Your task to perform on an android device: Empty the shopping cart on ebay. Search for dell xps on ebay, select the first entry, add it to the cart, then select checkout. Image 0: 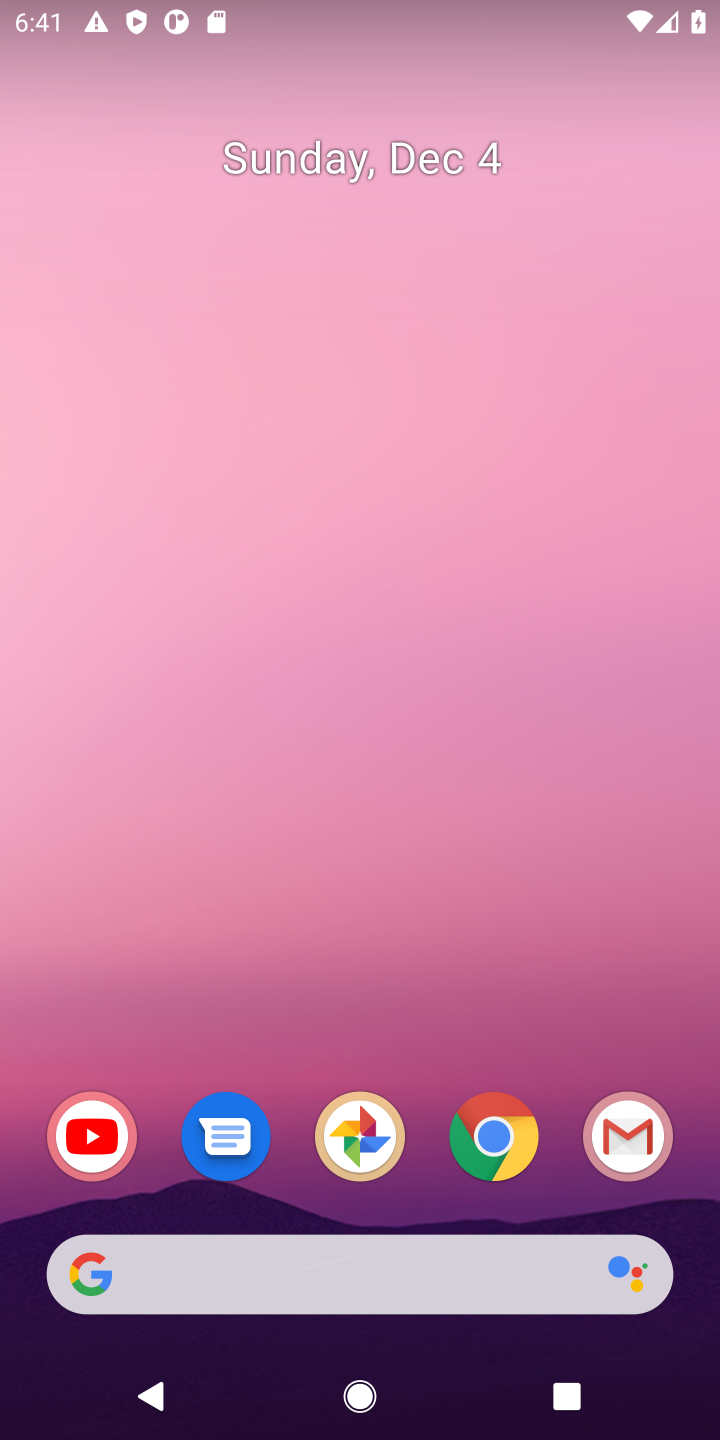
Step 0: click (500, 1124)
Your task to perform on an android device: Empty the shopping cart on ebay. Search for dell xps on ebay, select the first entry, add it to the cart, then select checkout. Image 1: 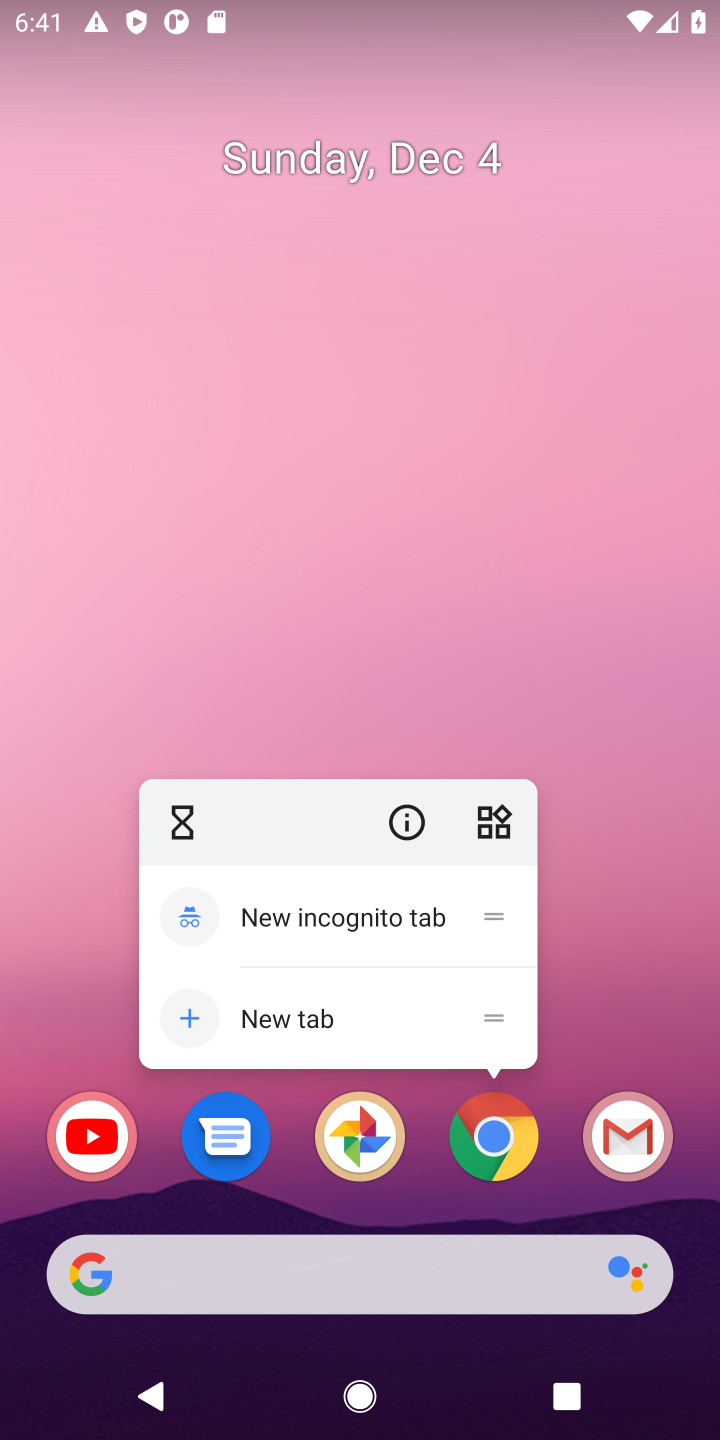
Step 1: click (500, 1124)
Your task to perform on an android device: Empty the shopping cart on ebay. Search for dell xps on ebay, select the first entry, add it to the cart, then select checkout. Image 2: 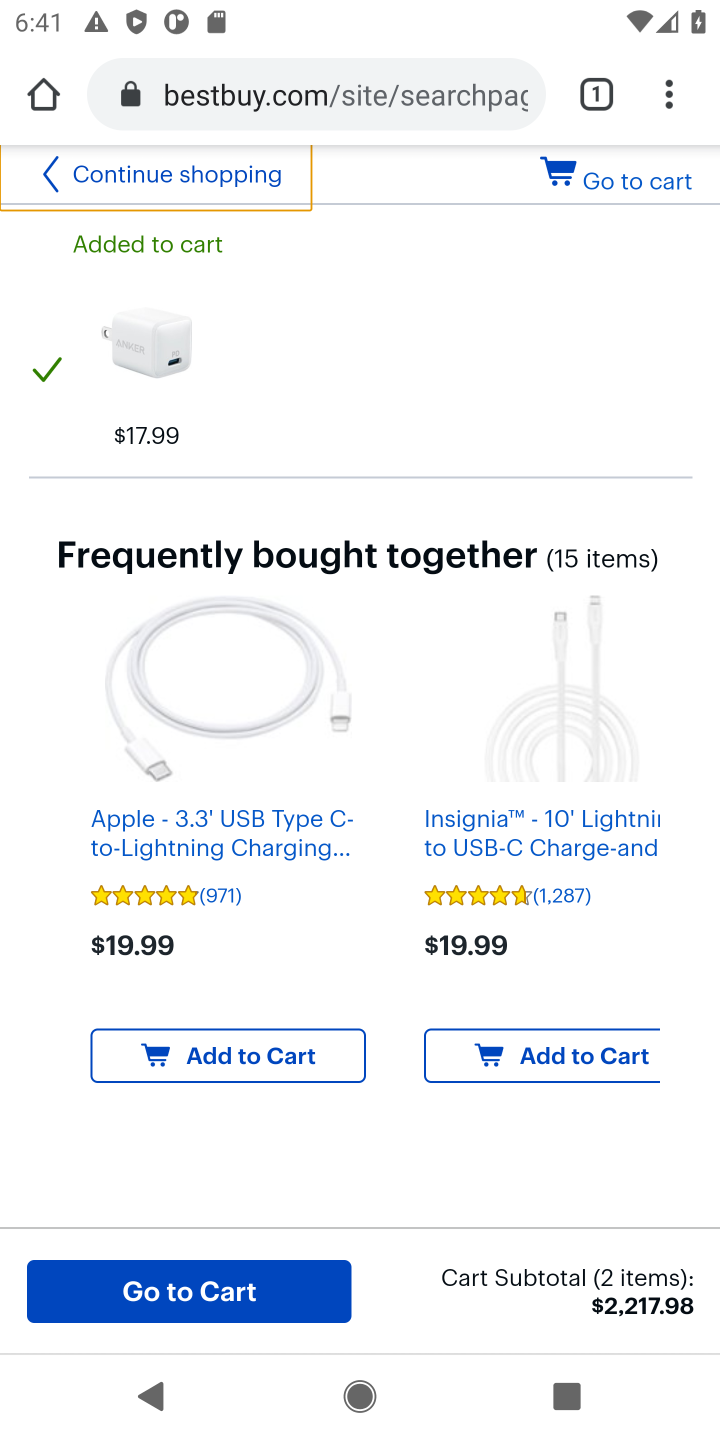
Step 2: click (250, 90)
Your task to perform on an android device: Empty the shopping cart on ebay. Search for dell xps on ebay, select the first entry, add it to the cart, then select checkout. Image 3: 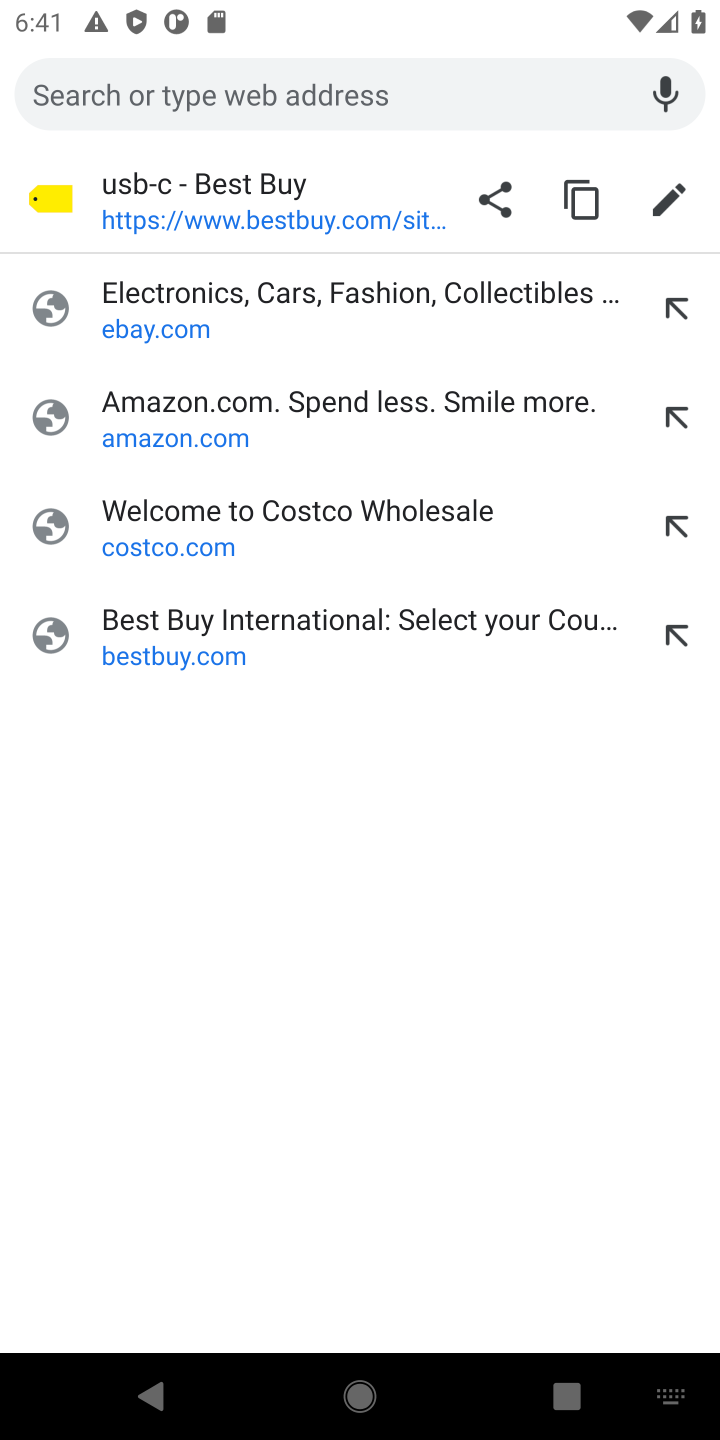
Step 3: click (170, 315)
Your task to perform on an android device: Empty the shopping cart on ebay. Search for dell xps on ebay, select the first entry, add it to the cart, then select checkout. Image 4: 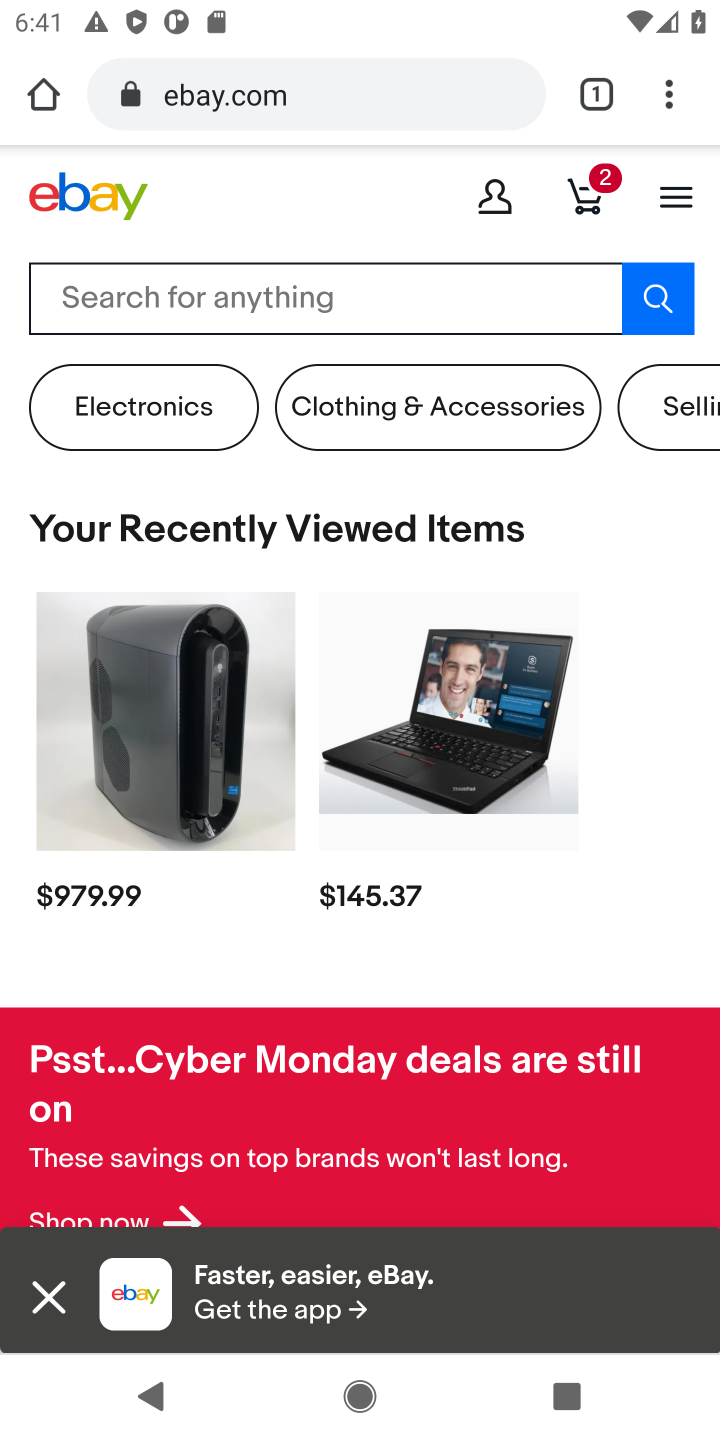
Step 4: click (592, 201)
Your task to perform on an android device: Empty the shopping cart on ebay. Search for dell xps on ebay, select the first entry, add it to the cart, then select checkout. Image 5: 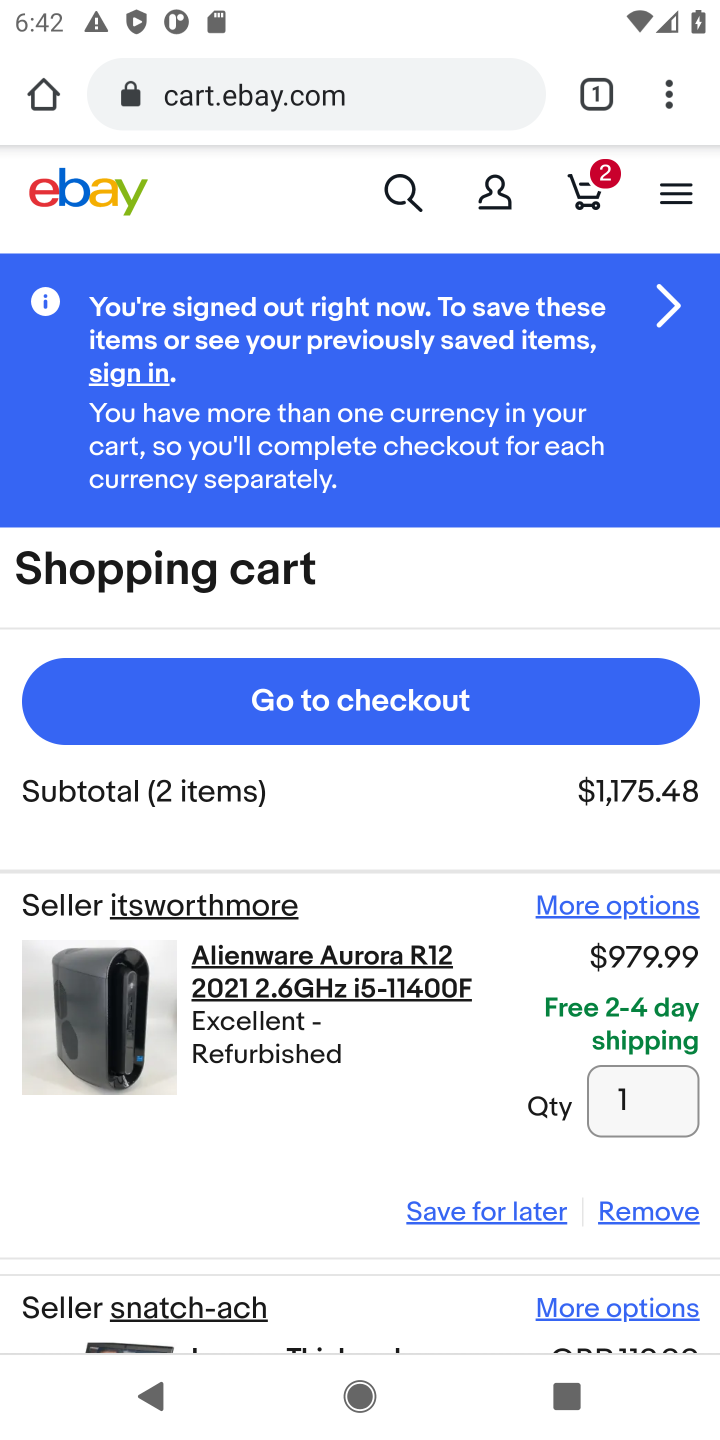
Step 5: click (628, 1223)
Your task to perform on an android device: Empty the shopping cart on ebay. Search for dell xps on ebay, select the first entry, add it to the cart, then select checkout. Image 6: 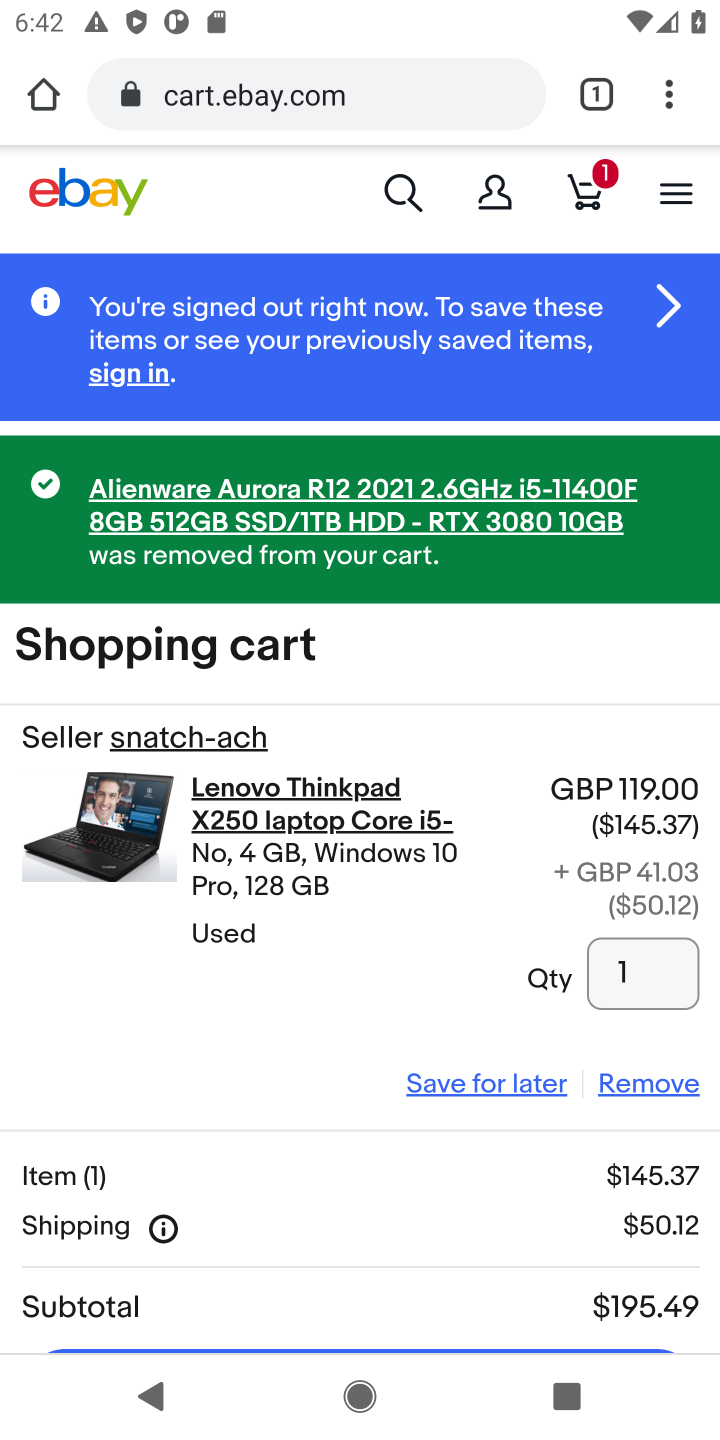
Step 6: click (670, 1075)
Your task to perform on an android device: Empty the shopping cart on ebay. Search for dell xps on ebay, select the first entry, add it to the cart, then select checkout. Image 7: 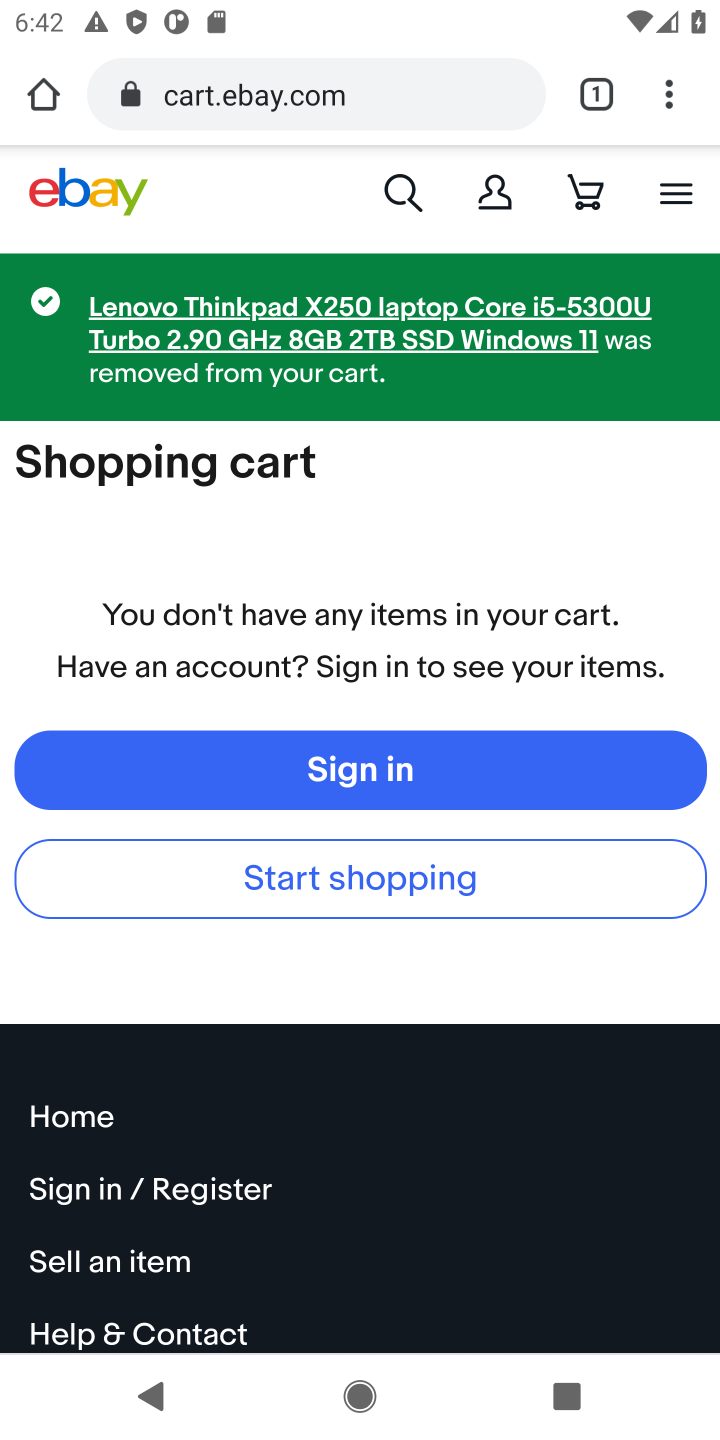
Step 7: click (387, 191)
Your task to perform on an android device: Empty the shopping cart on ebay. Search for dell xps on ebay, select the first entry, add it to the cart, then select checkout. Image 8: 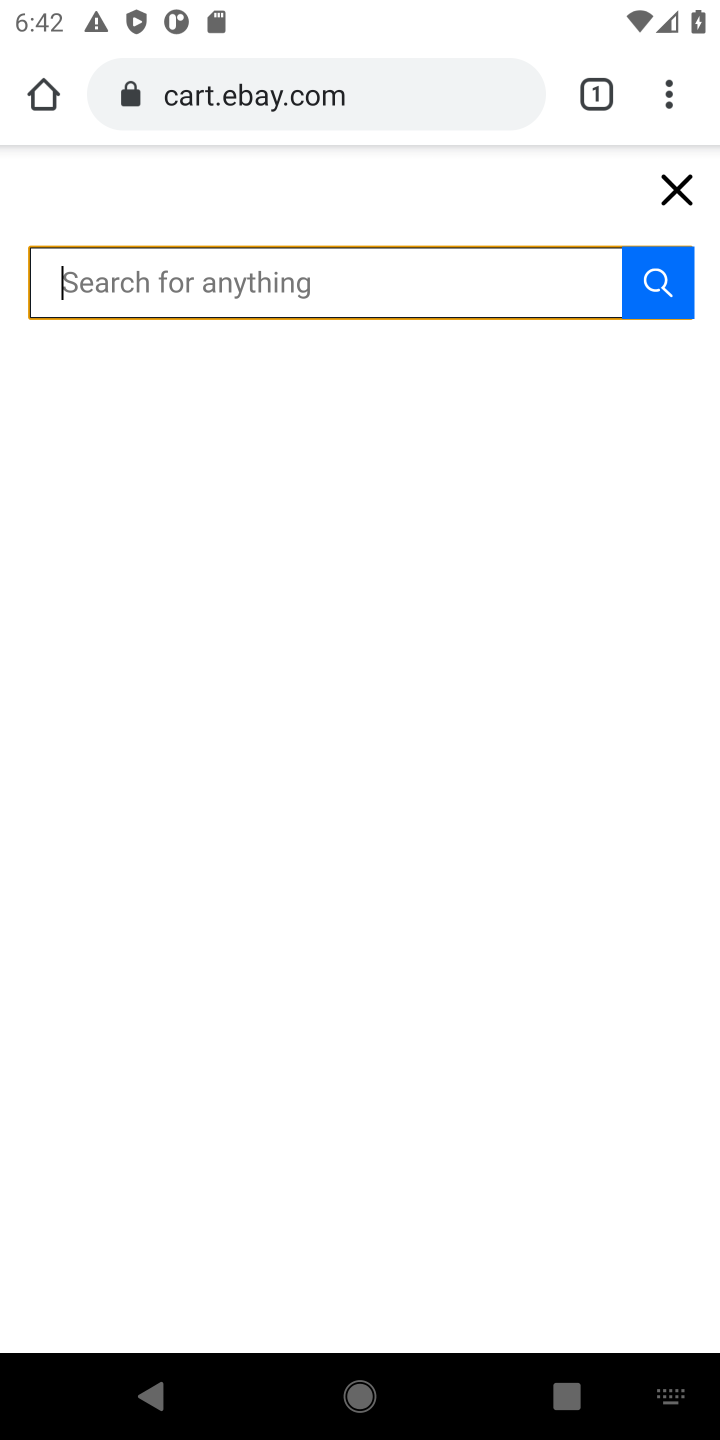
Step 8: type "dell xps"
Your task to perform on an android device: Empty the shopping cart on ebay. Search for dell xps on ebay, select the first entry, add it to the cart, then select checkout. Image 9: 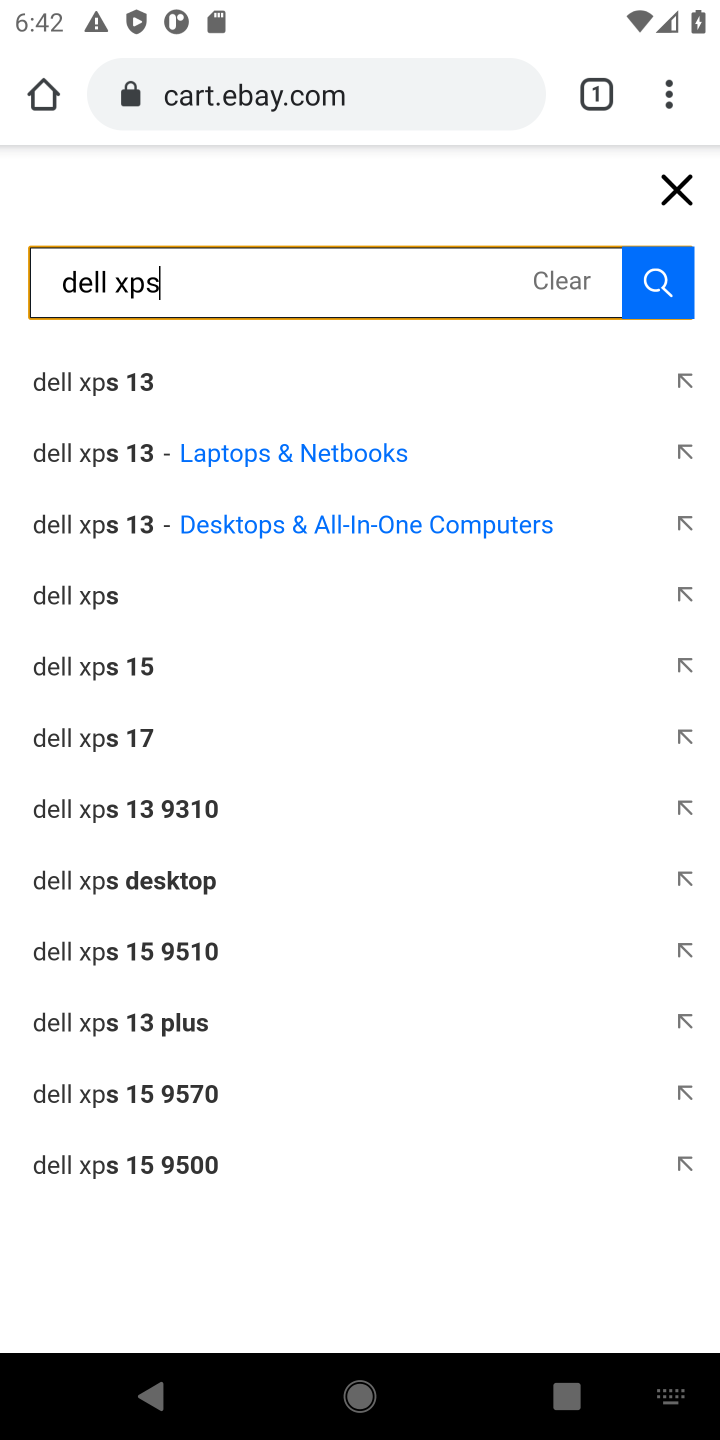
Step 9: click (106, 606)
Your task to perform on an android device: Empty the shopping cart on ebay. Search for dell xps on ebay, select the first entry, add it to the cart, then select checkout. Image 10: 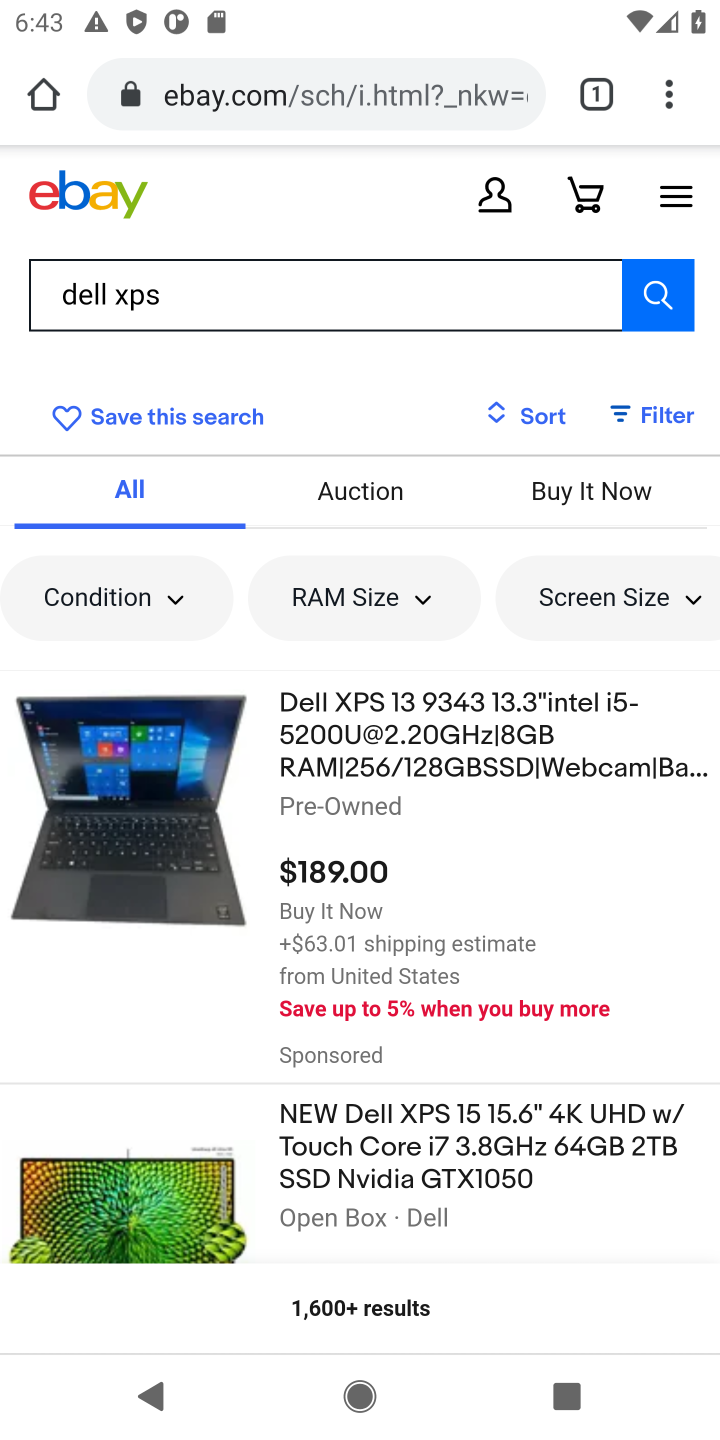
Step 10: click (374, 764)
Your task to perform on an android device: Empty the shopping cart on ebay. Search for dell xps on ebay, select the first entry, add it to the cart, then select checkout. Image 11: 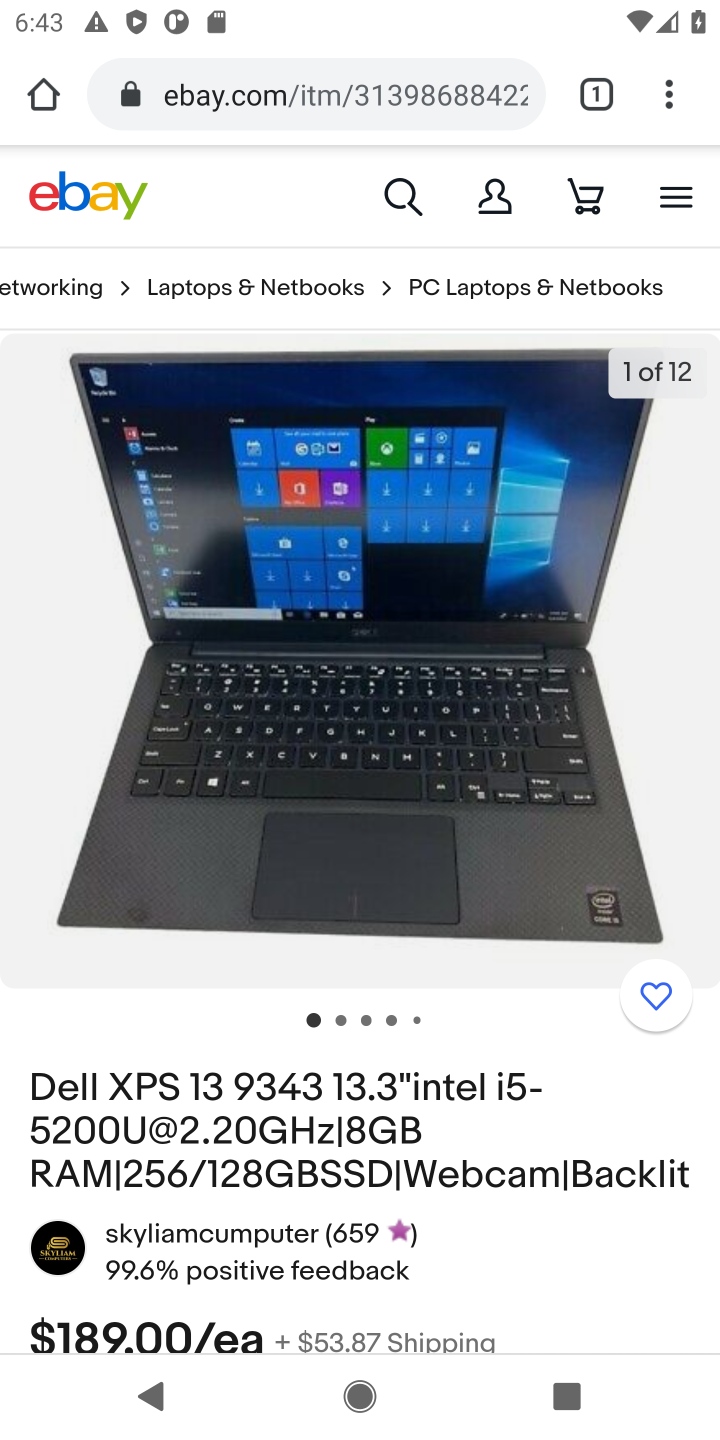
Step 11: drag from (446, 1077) to (429, 569)
Your task to perform on an android device: Empty the shopping cart on ebay. Search for dell xps on ebay, select the first entry, add it to the cart, then select checkout. Image 12: 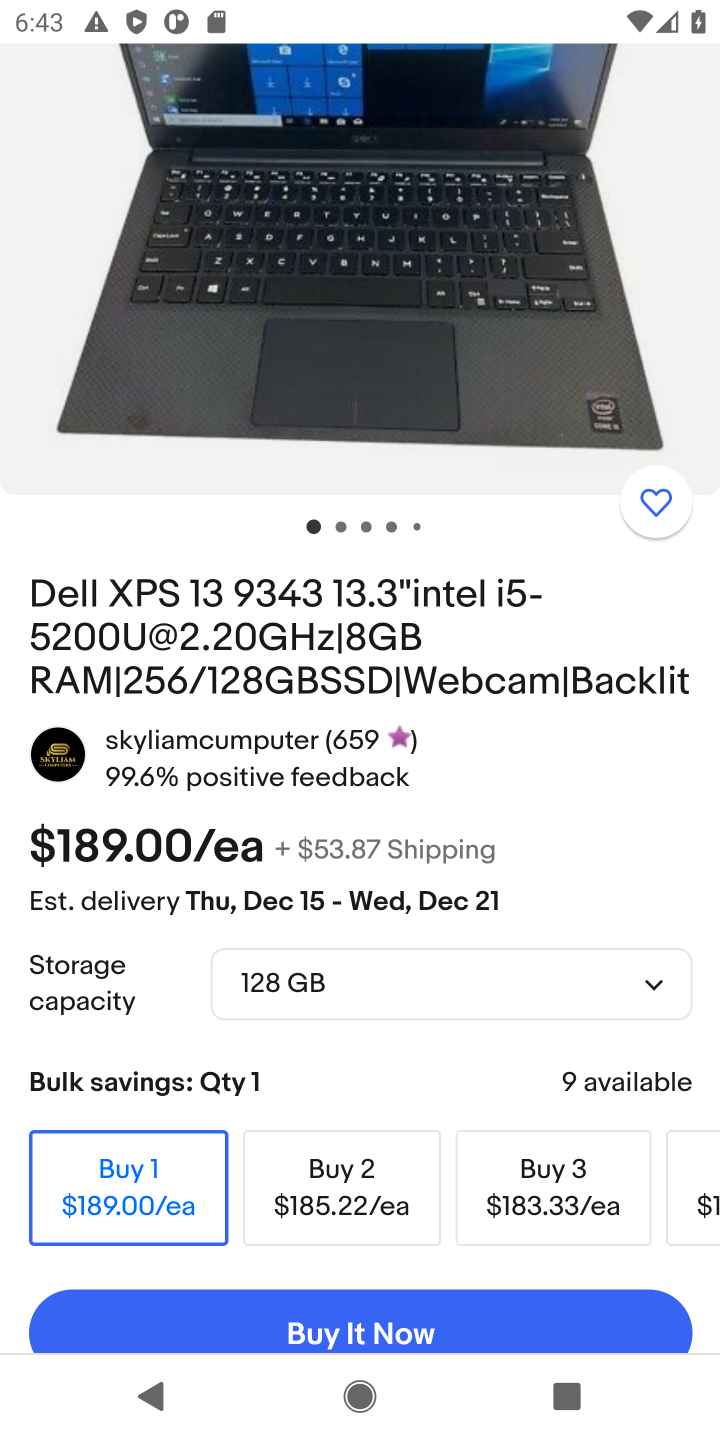
Step 12: drag from (404, 916) to (365, 484)
Your task to perform on an android device: Empty the shopping cart on ebay. Search for dell xps on ebay, select the first entry, add it to the cart, then select checkout. Image 13: 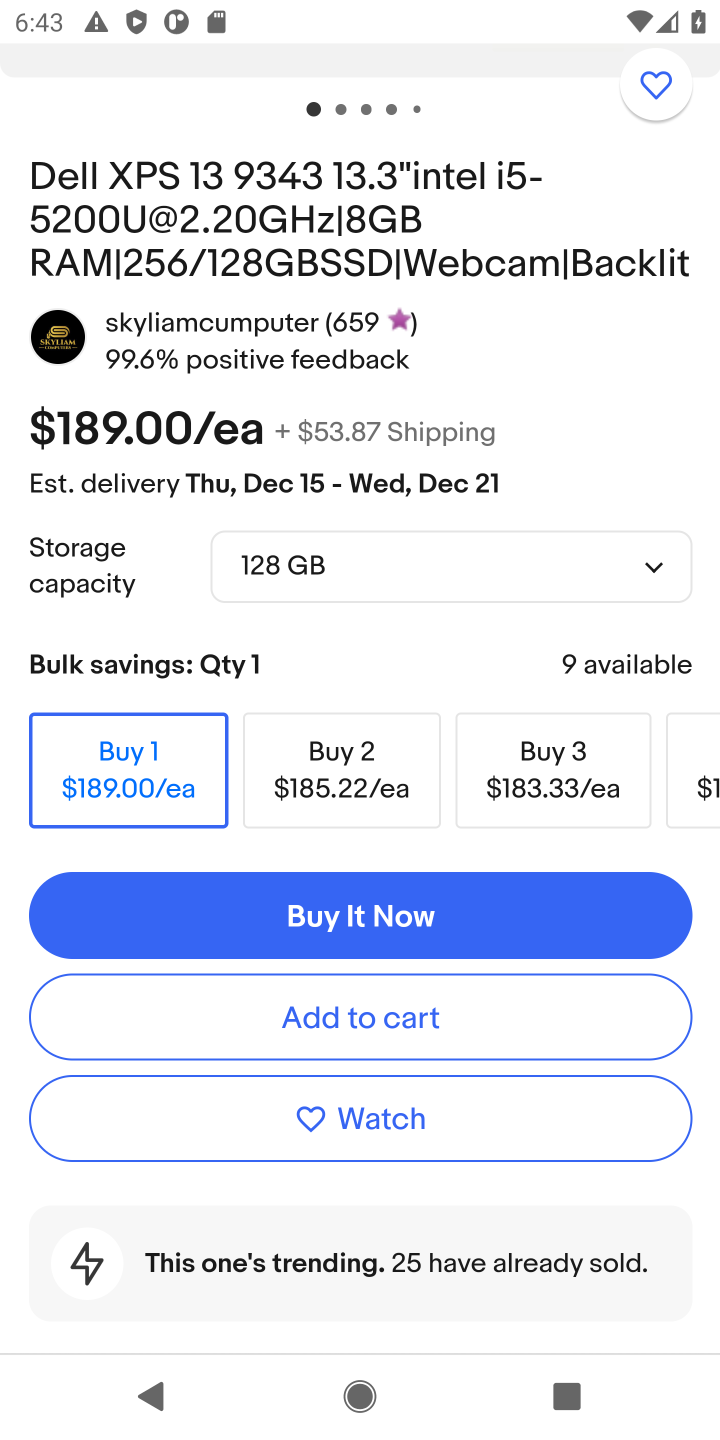
Step 13: click (299, 1012)
Your task to perform on an android device: Empty the shopping cart on ebay. Search for dell xps on ebay, select the first entry, add it to the cart, then select checkout. Image 14: 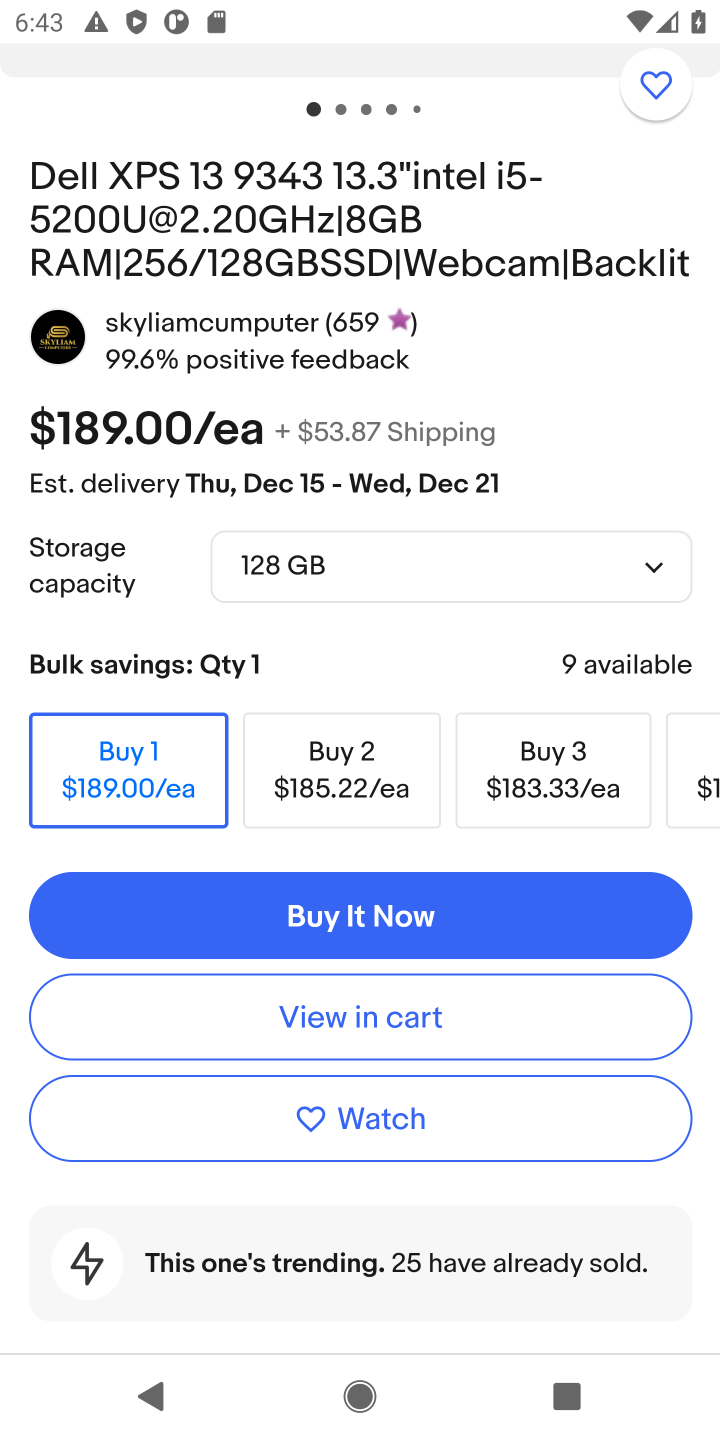
Step 14: click (299, 1012)
Your task to perform on an android device: Empty the shopping cart on ebay. Search for dell xps on ebay, select the first entry, add it to the cart, then select checkout. Image 15: 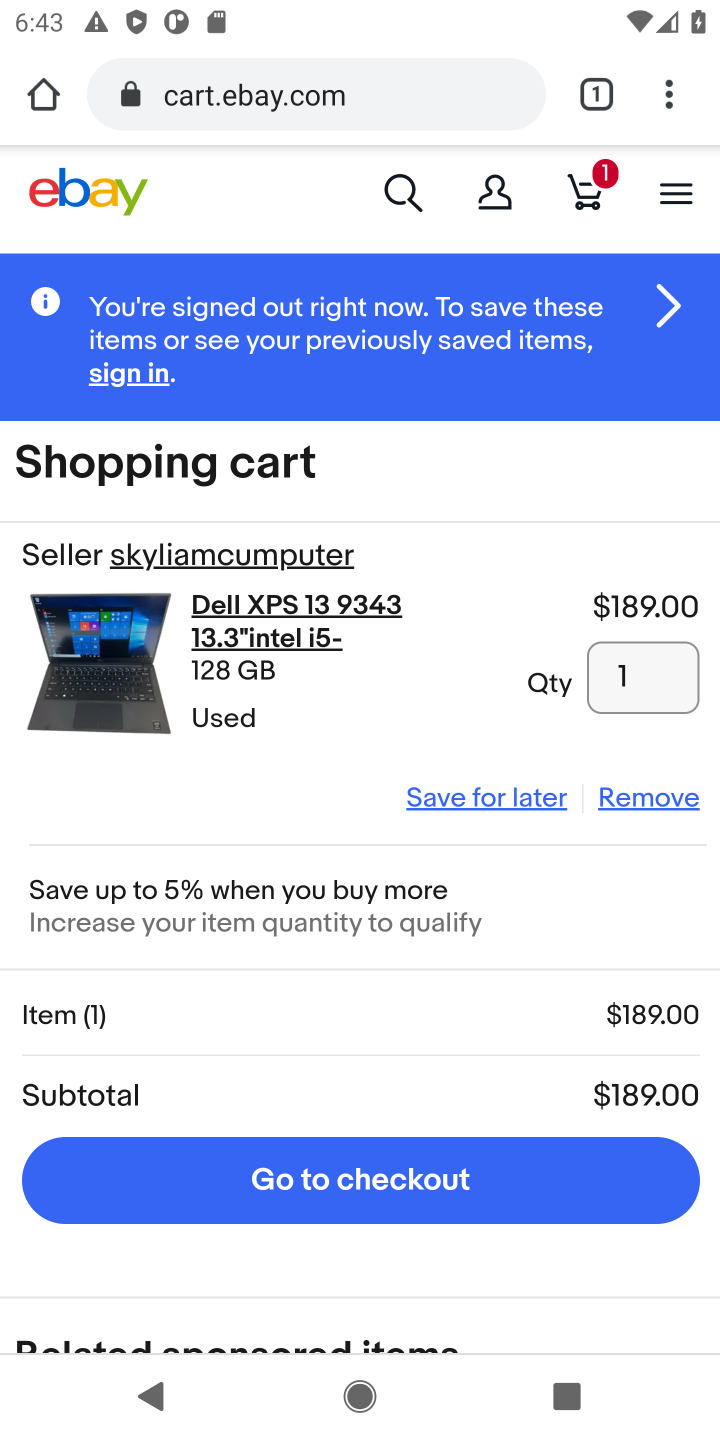
Step 15: click (309, 1162)
Your task to perform on an android device: Empty the shopping cart on ebay. Search for dell xps on ebay, select the first entry, add it to the cart, then select checkout. Image 16: 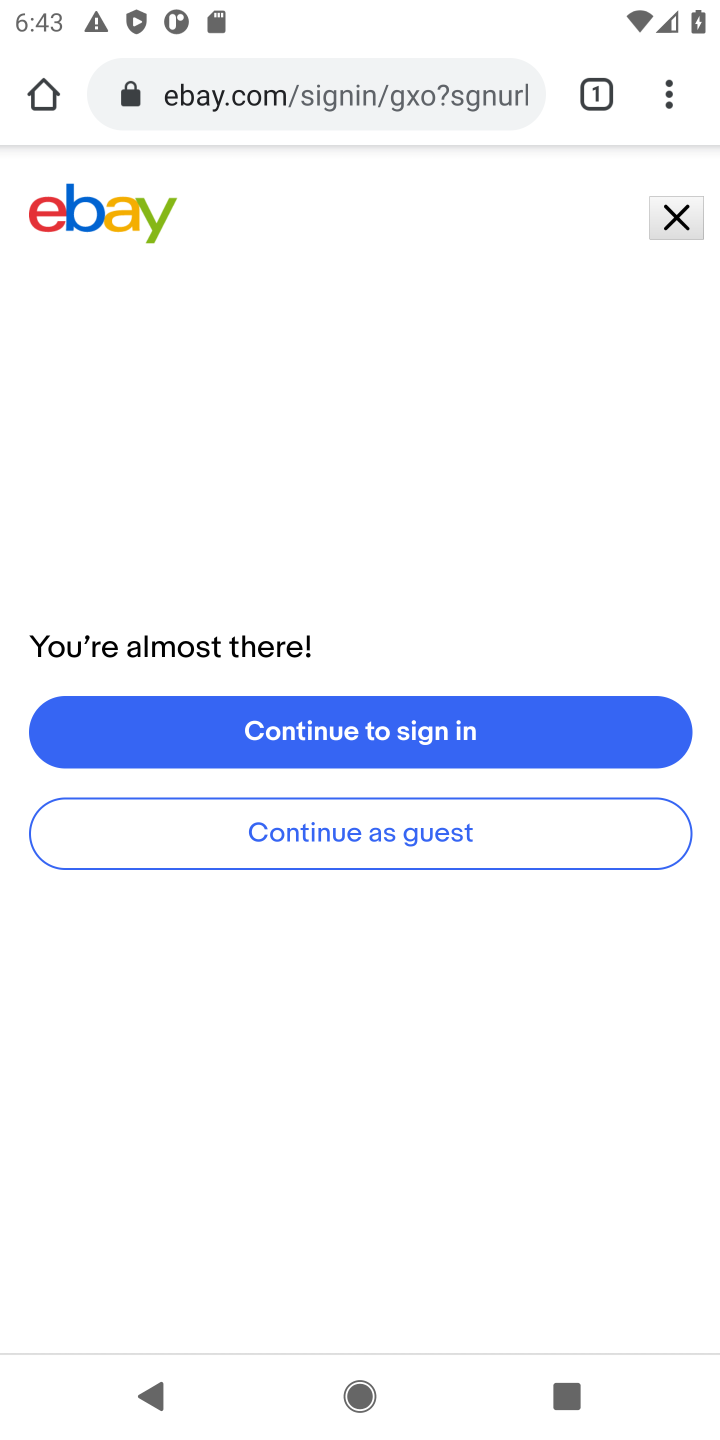
Step 16: task complete